Your task to perform on an android device: turn on the 12-hour format for clock Image 0: 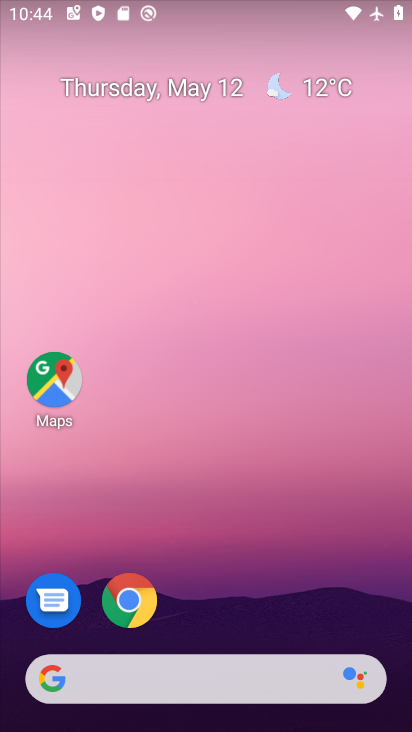
Step 0: drag from (307, 562) to (239, 208)
Your task to perform on an android device: turn on the 12-hour format for clock Image 1: 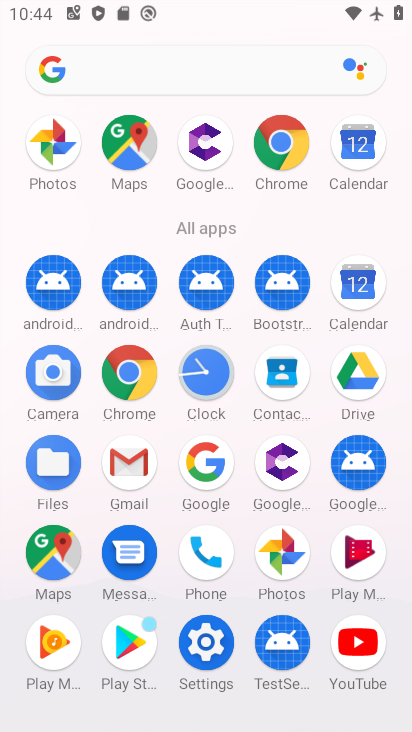
Step 1: click (214, 362)
Your task to perform on an android device: turn on the 12-hour format for clock Image 2: 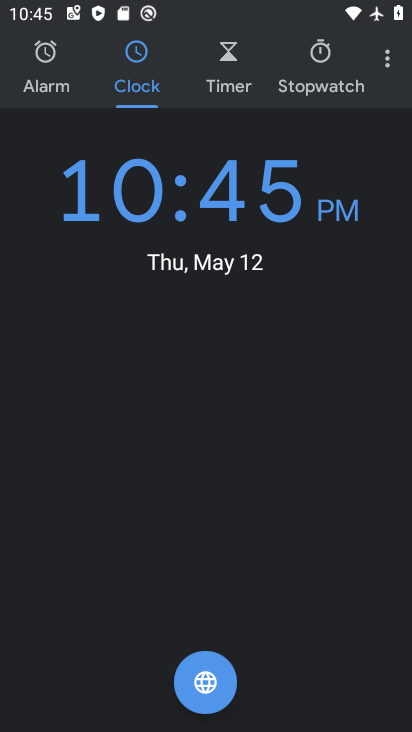
Step 2: click (384, 67)
Your task to perform on an android device: turn on the 12-hour format for clock Image 3: 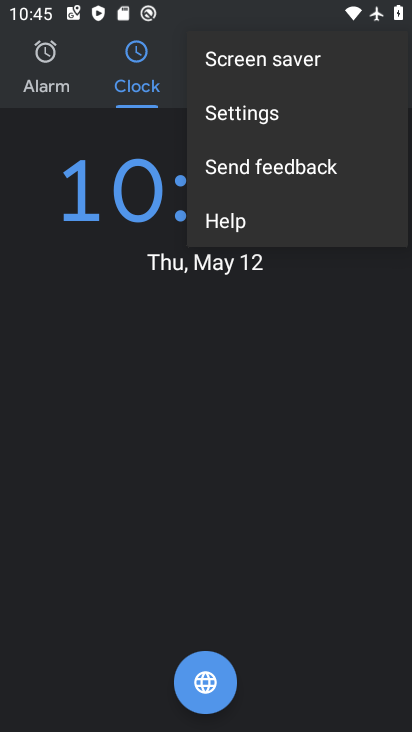
Step 3: click (259, 125)
Your task to perform on an android device: turn on the 12-hour format for clock Image 4: 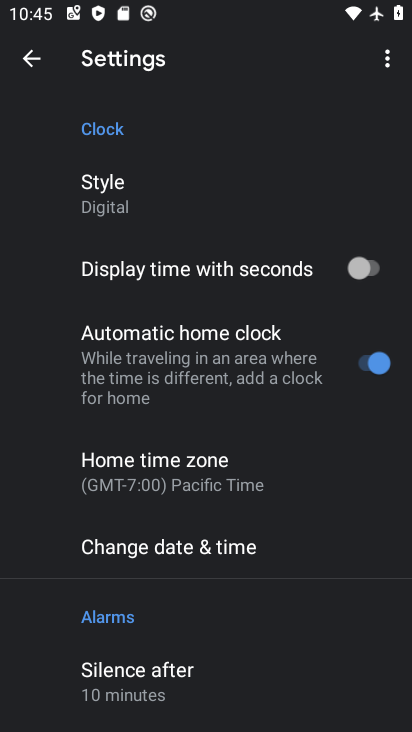
Step 4: drag from (310, 515) to (266, 386)
Your task to perform on an android device: turn on the 12-hour format for clock Image 5: 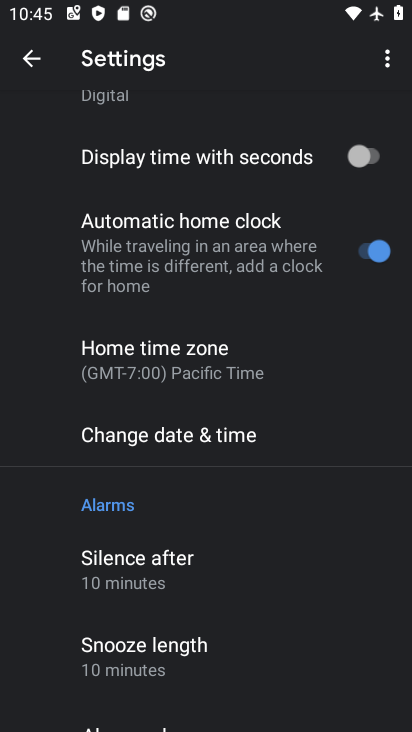
Step 5: click (255, 431)
Your task to perform on an android device: turn on the 12-hour format for clock Image 6: 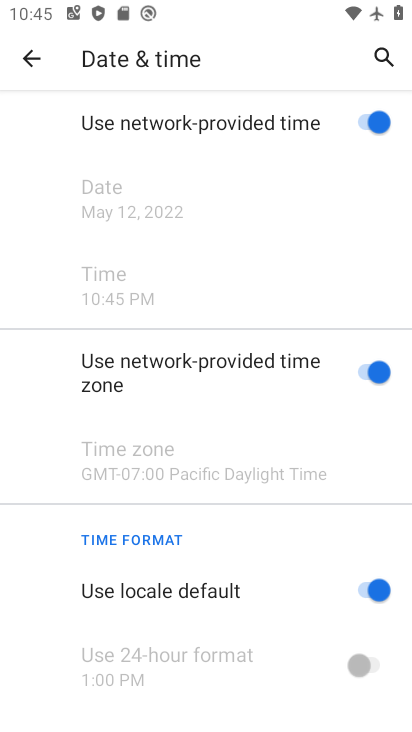
Step 6: task complete